Your task to perform on an android device: Open location settings Image 0: 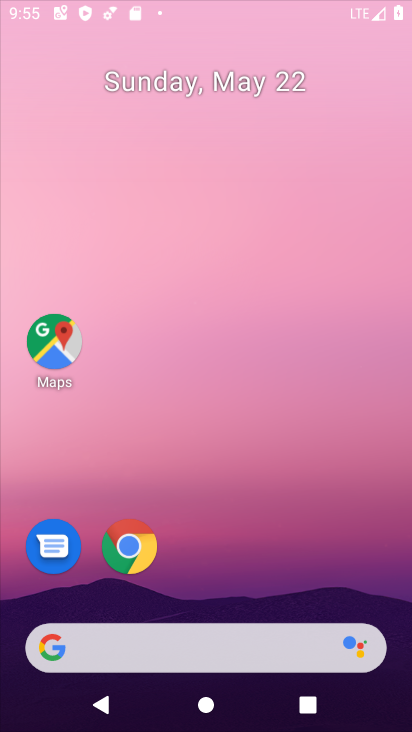
Step 0: click (268, 166)
Your task to perform on an android device: Open location settings Image 1: 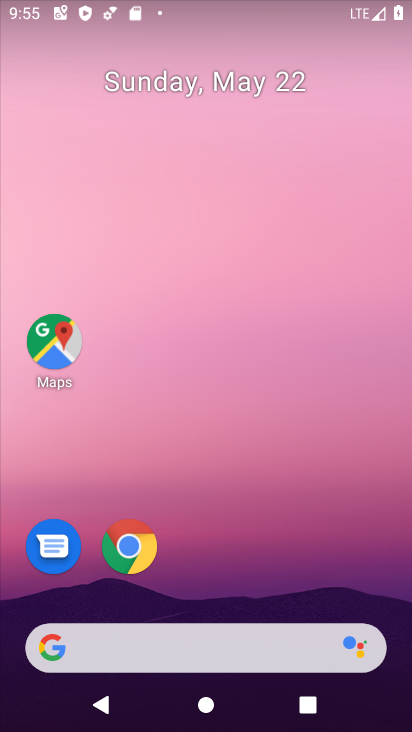
Step 1: drag from (163, 594) to (260, 118)
Your task to perform on an android device: Open location settings Image 2: 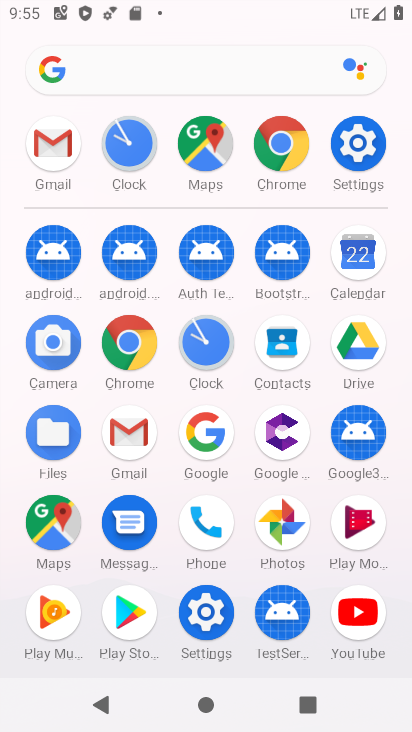
Step 2: click (204, 614)
Your task to perform on an android device: Open location settings Image 3: 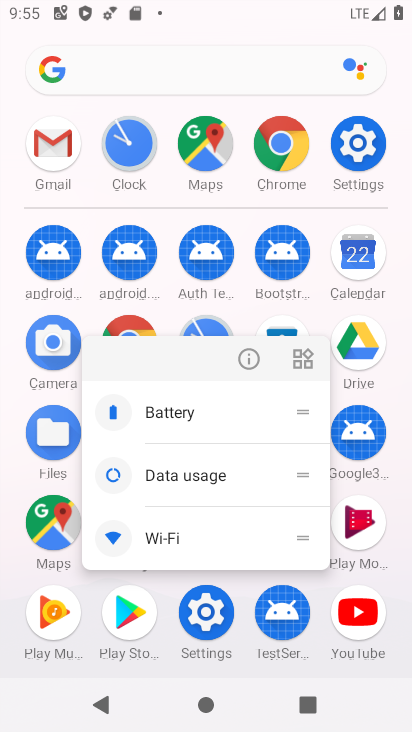
Step 3: click (244, 356)
Your task to perform on an android device: Open location settings Image 4: 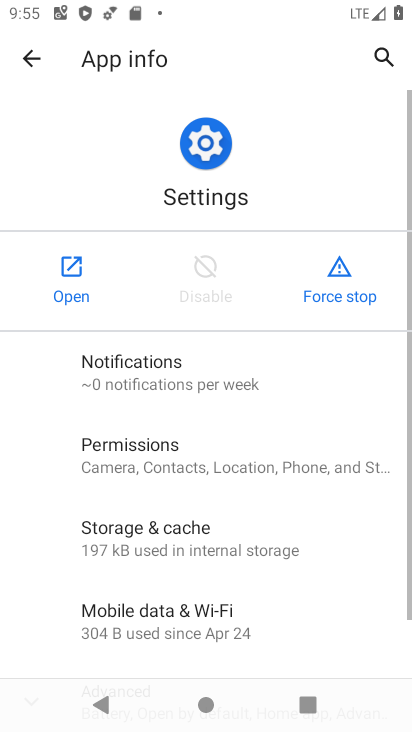
Step 4: click (70, 277)
Your task to perform on an android device: Open location settings Image 5: 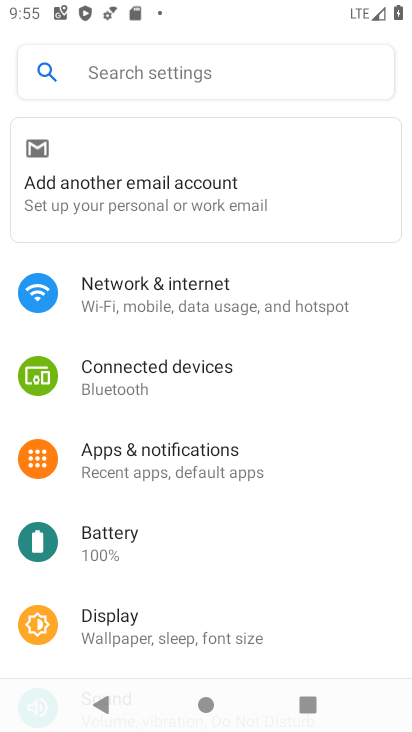
Step 5: drag from (224, 565) to (257, 257)
Your task to perform on an android device: Open location settings Image 6: 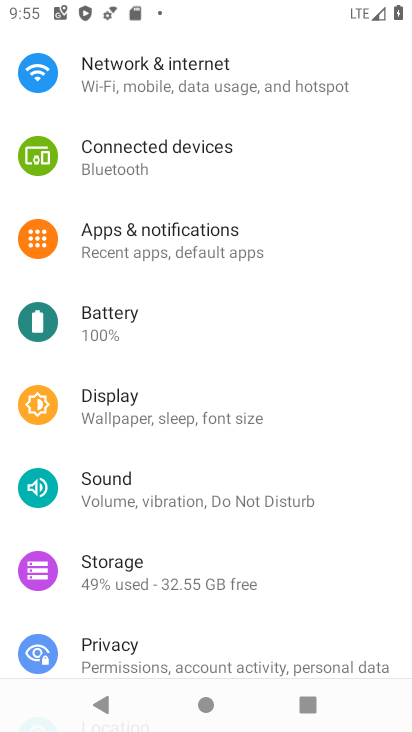
Step 6: drag from (177, 521) to (194, 166)
Your task to perform on an android device: Open location settings Image 7: 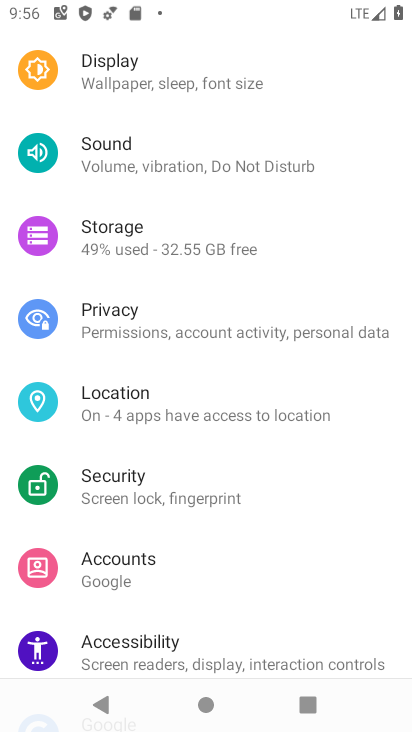
Step 7: drag from (204, 508) to (191, 163)
Your task to perform on an android device: Open location settings Image 8: 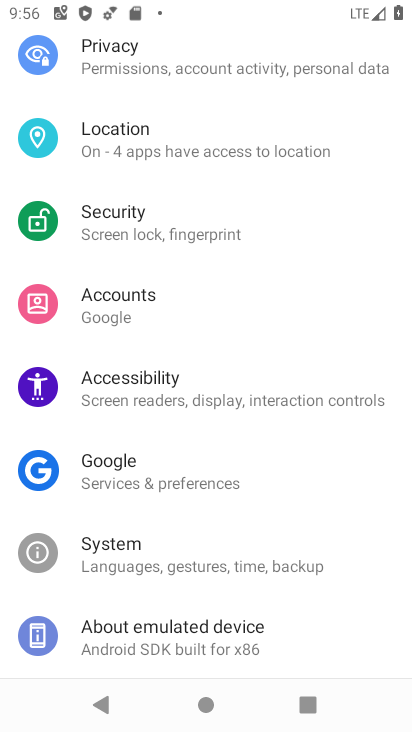
Step 8: click (162, 135)
Your task to perform on an android device: Open location settings Image 9: 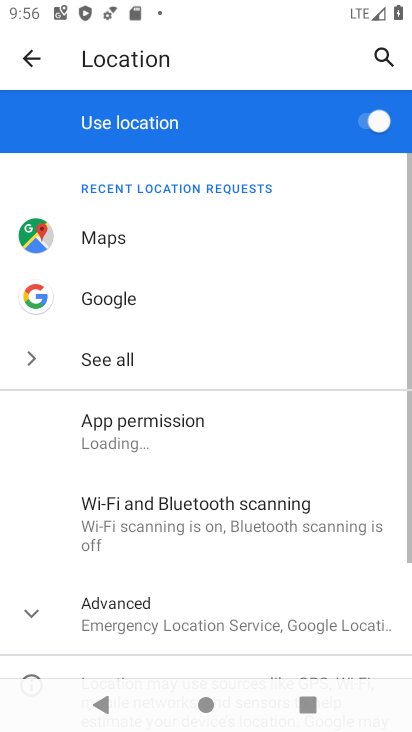
Step 9: task complete